Your task to perform on an android device: Open Google Chrome Image 0: 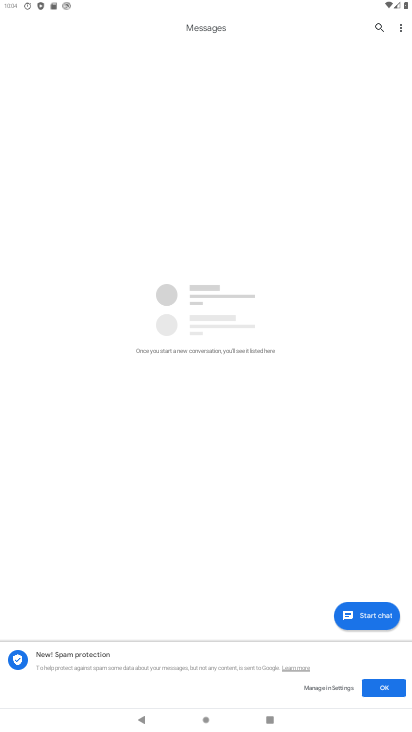
Step 0: task complete